Your task to perform on an android device: add a label to a message in the gmail app Image 0: 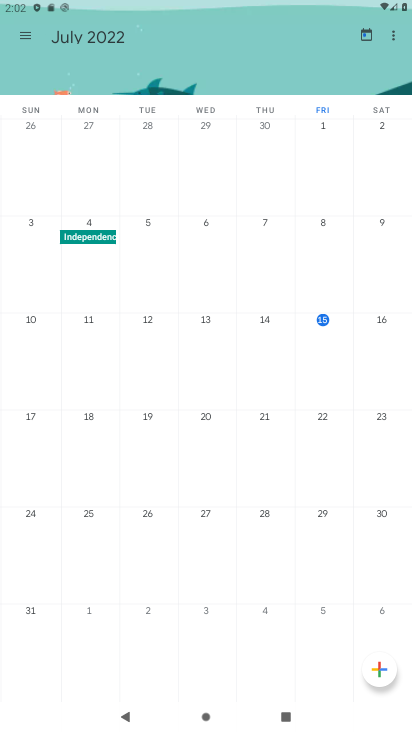
Step 0: press home button
Your task to perform on an android device: add a label to a message in the gmail app Image 1: 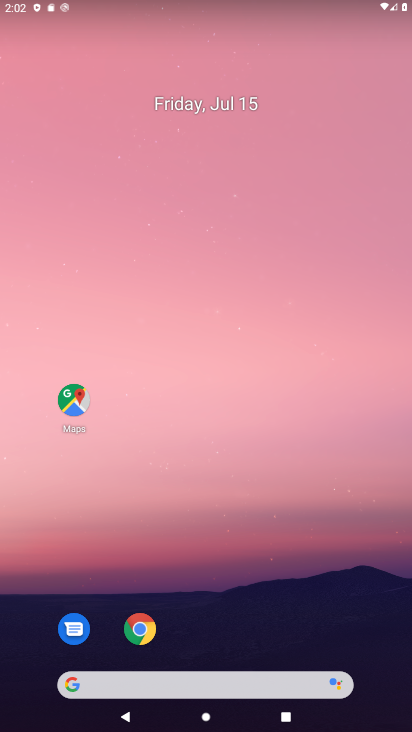
Step 1: drag from (285, 649) to (228, 3)
Your task to perform on an android device: add a label to a message in the gmail app Image 2: 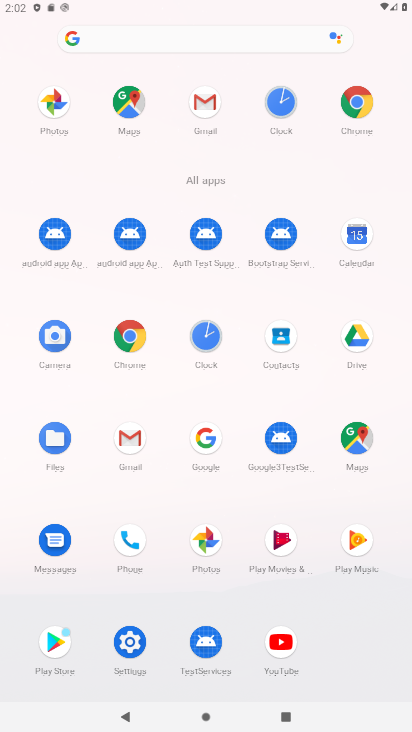
Step 2: click (214, 95)
Your task to perform on an android device: add a label to a message in the gmail app Image 3: 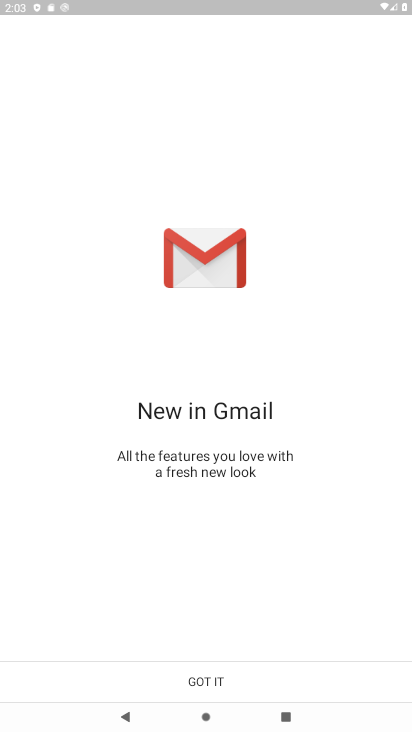
Step 3: click (207, 688)
Your task to perform on an android device: add a label to a message in the gmail app Image 4: 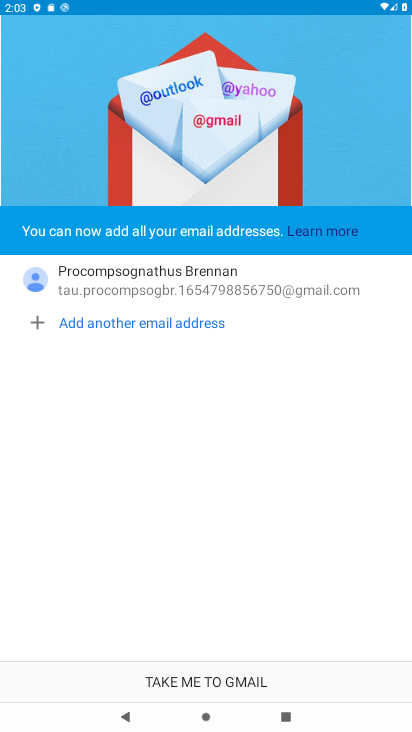
Step 4: click (207, 688)
Your task to perform on an android device: add a label to a message in the gmail app Image 5: 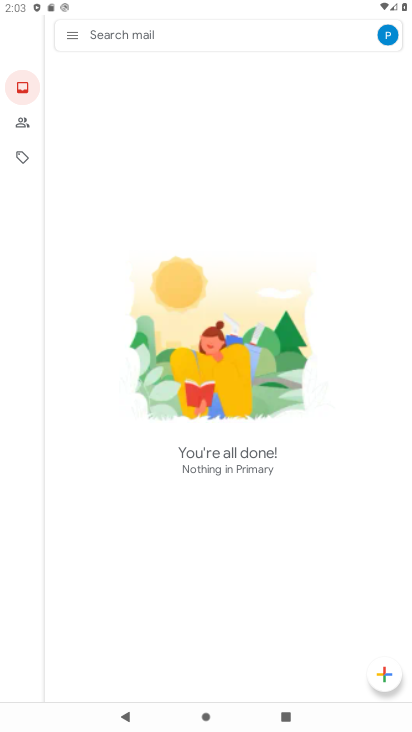
Step 5: task complete